Your task to perform on an android device: Open network settings Image 0: 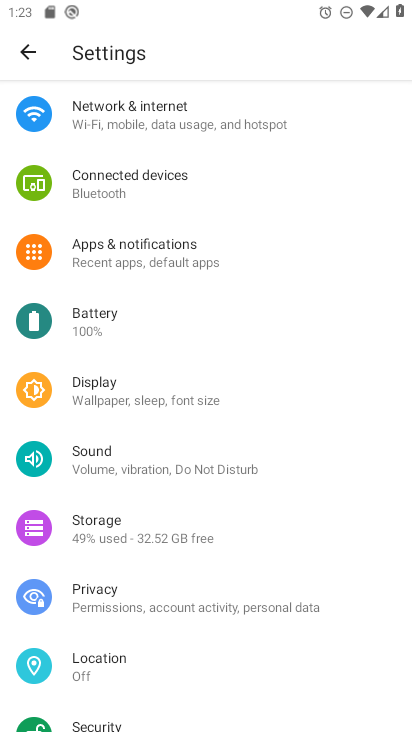
Step 0: click (145, 129)
Your task to perform on an android device: Open network settings Image 1: 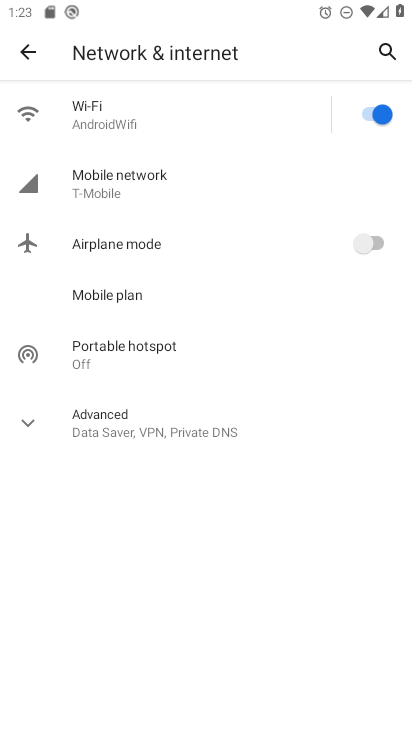
Step 1: click (160, 198)
Your task to perform on an android device: Open network settings Image 2: 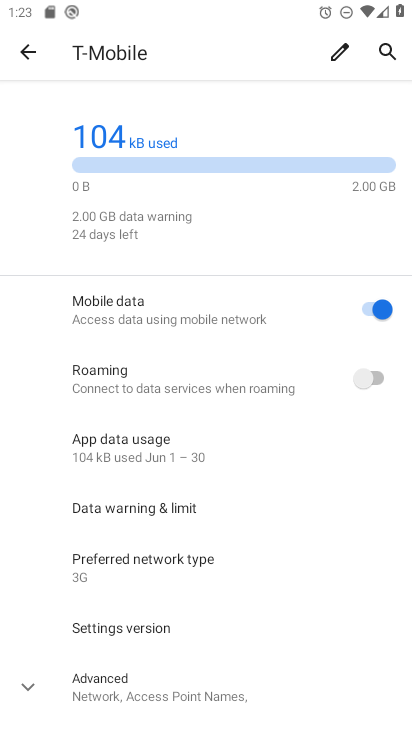
Step 2: click (163, 454)
Your task to perform on an android device: Open network settings Image 3: 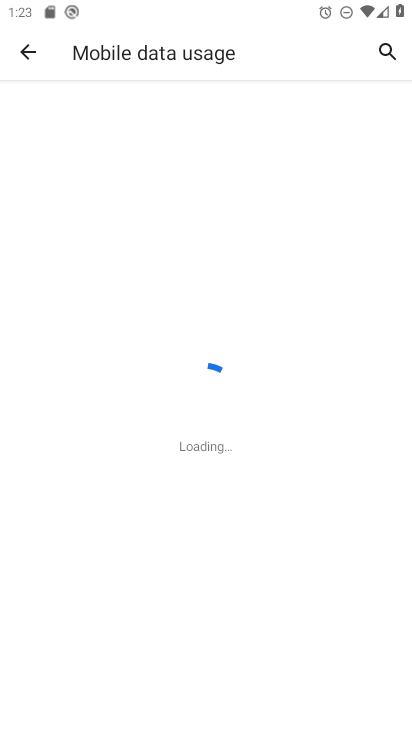
Step 3: task complete